Your task to perform on an android device: View the shopping cart on walmart.com. Add acer nitro to the cart on walmart.com, then select checkout. Image 0: 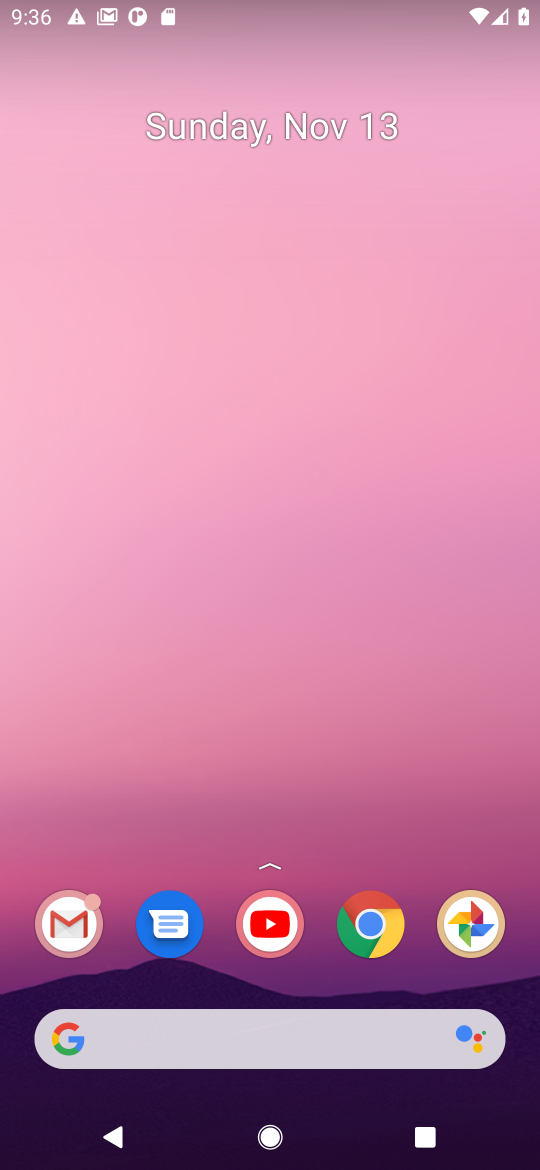
Step 0: click (375, 942)
Your task to perform on an android device: View the shopping cart on walmart.com. Add acer nitro to the cart on walmart.com, then select checkout. Image 1: 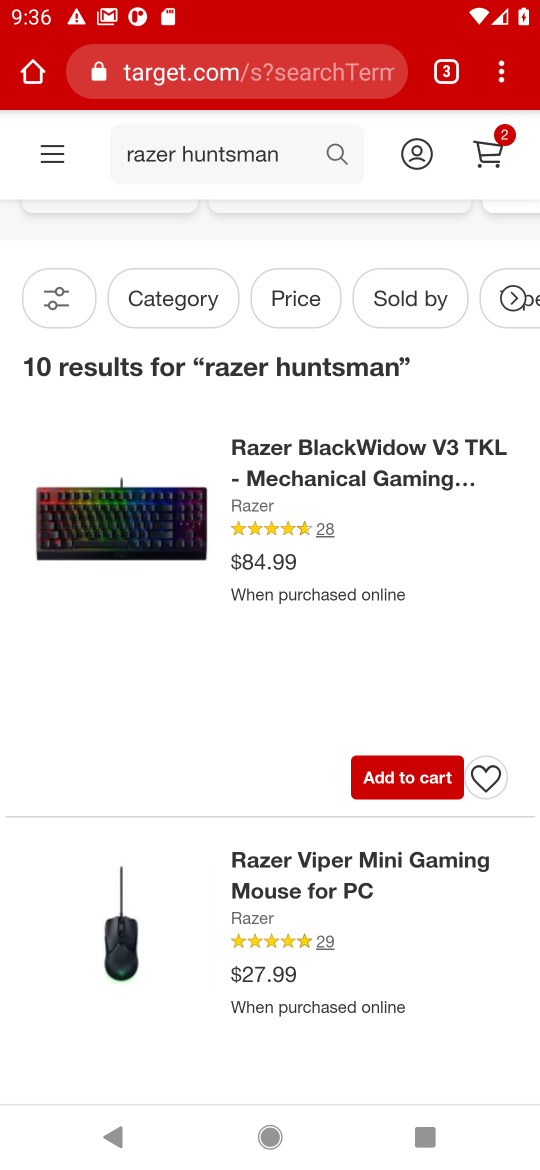
Step 1: click (250, 67)
Your task to perform on an android device: View the shopping cart on walmart.com. Add acer nitro to the cart on walmart.com, then select checkout. Image 2: 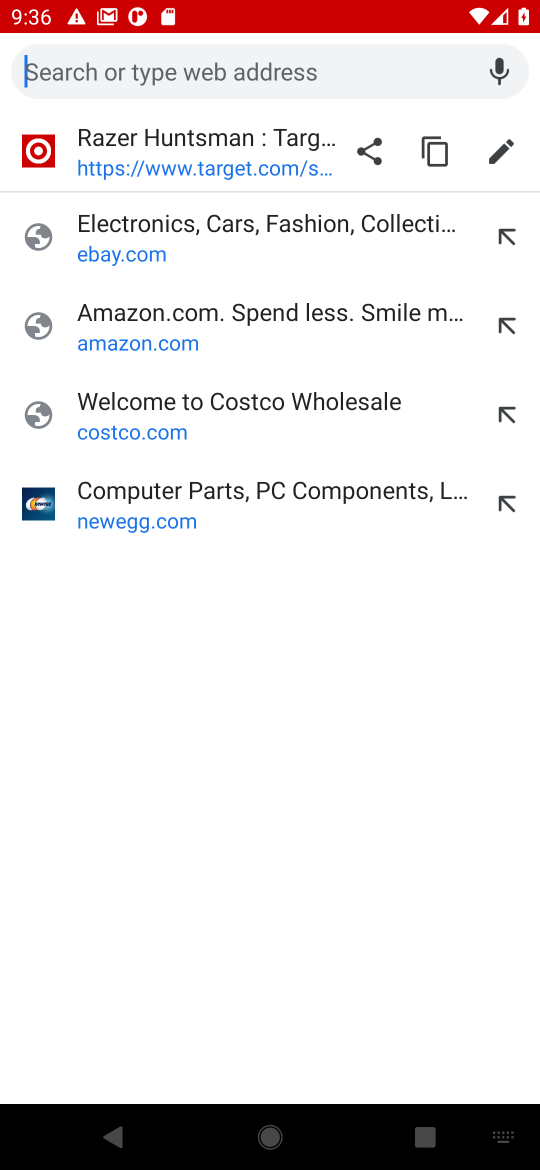
Step 2: type "walmart.com"
Your task to perform on an android device: View the shopping cart on walmart.com. Add acer nitro to the cart on walmart.com, then select checkout. Image 3: 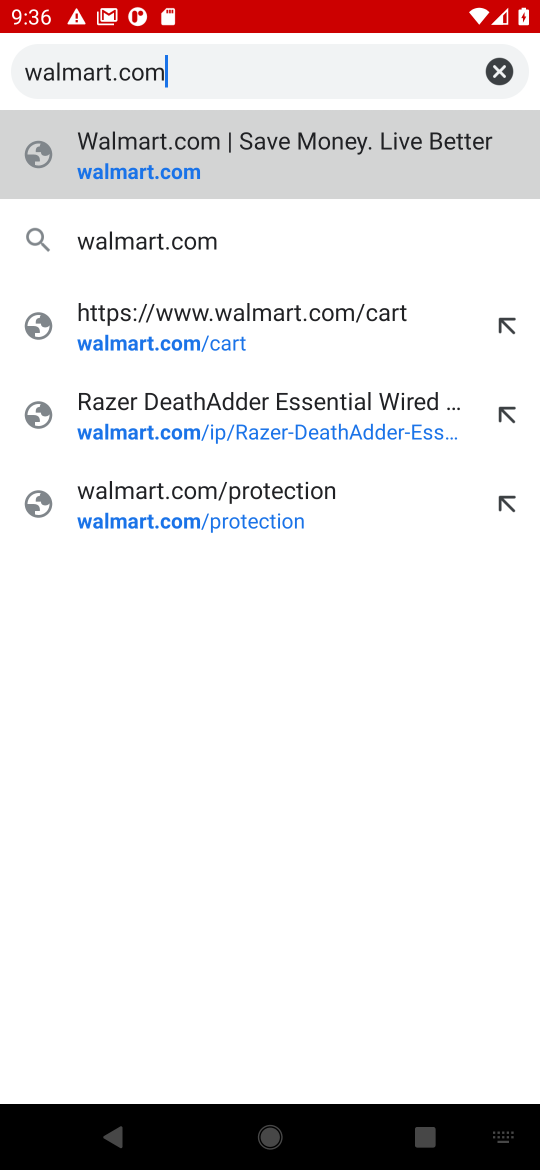
Step 3: click (146, 172)
Your task to perform on an android device: View the shopping cart on walmart.com. Add acer nitro to the cart on walmart.com, then select checkout. Image 4: 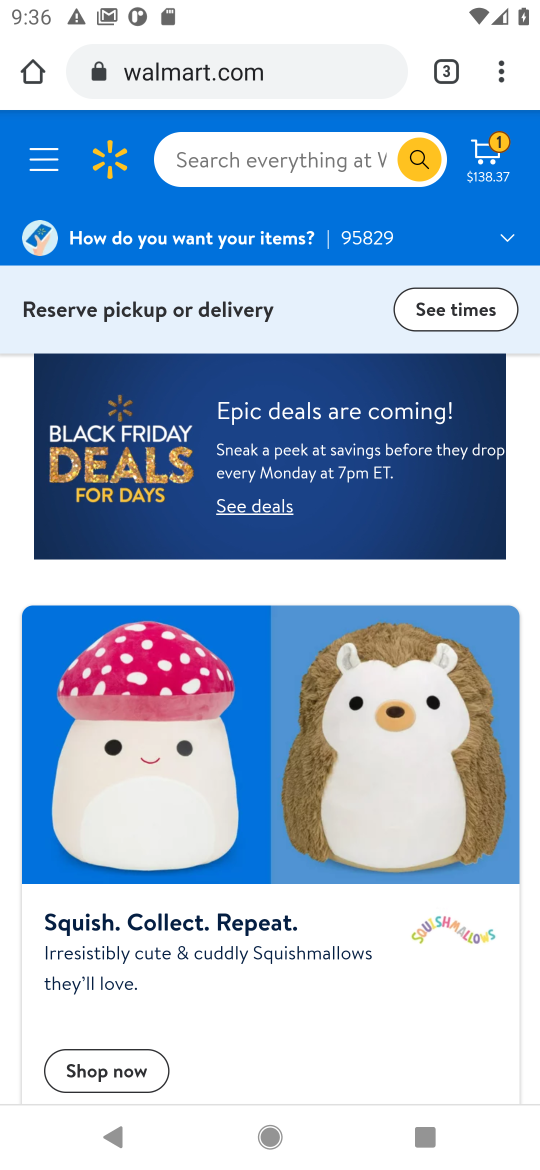
Step 4: click (487, 178)
Your task to perform on an android device: View the shopping cart on walmart.com. Add acer nitro to the cart on walmart.com, then select checkout. Image 5: 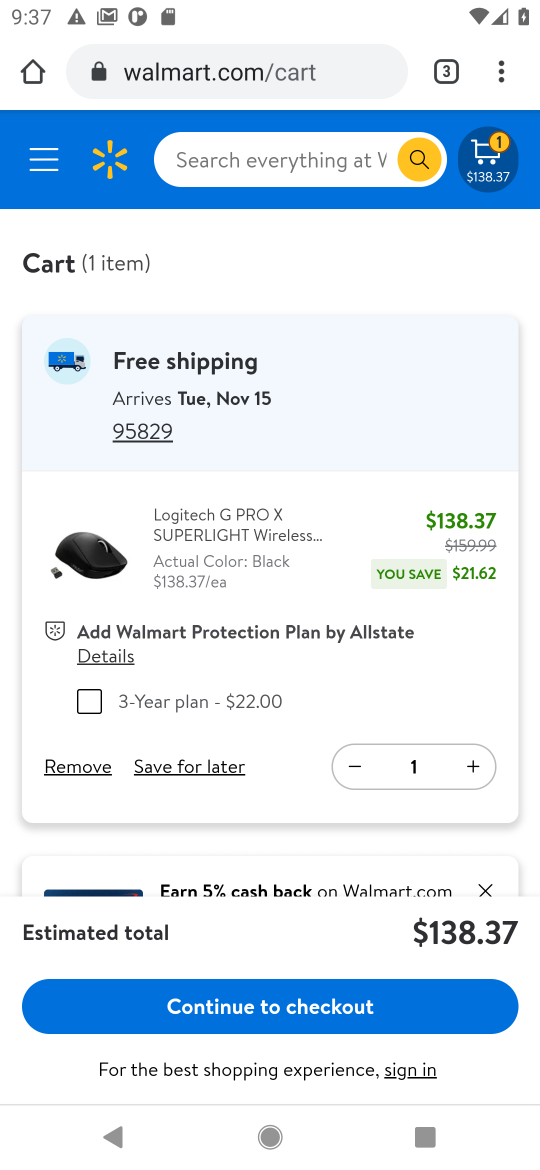
Step 5: click (247, 171)
Your task to perform on an android device: View the shopping cart on walmart.com. Add acer nitro to the cart on walmart.com, then select checkout. Image 6: 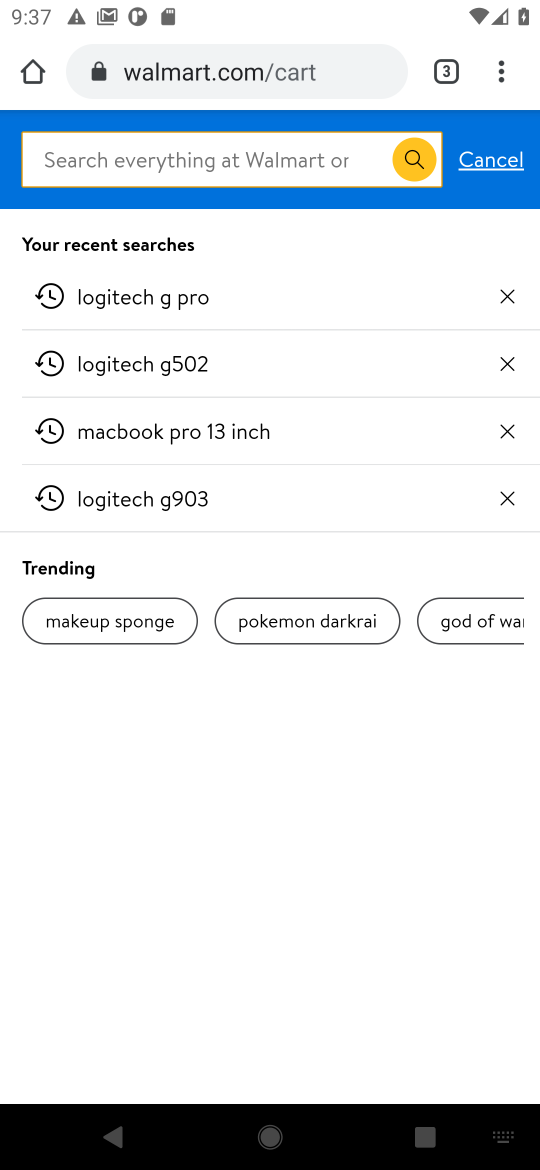
Step 6: type "acer nitro"
Your task to perform on an android device: View the shopping cart on walmart.com. Add acer nitro to the cart on walmart.com, then select checkout. Image 7: 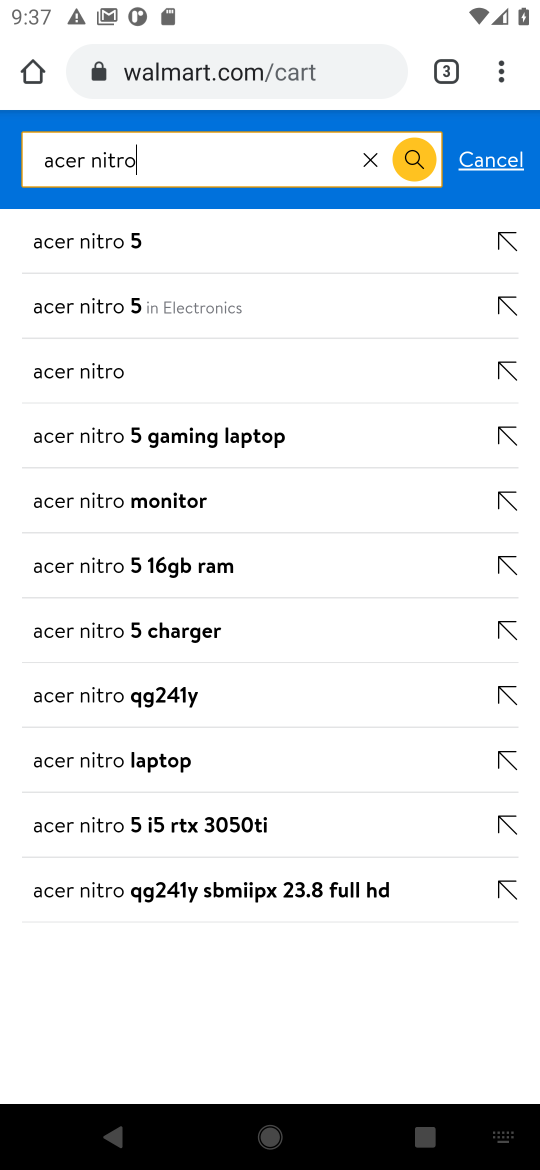
Step 7: click (50, 379)
Your task to perform on an android device: View the shopping cart on walmart.com. Add acer nitro to the cart on walmart.com, then select checkout. Image 8: 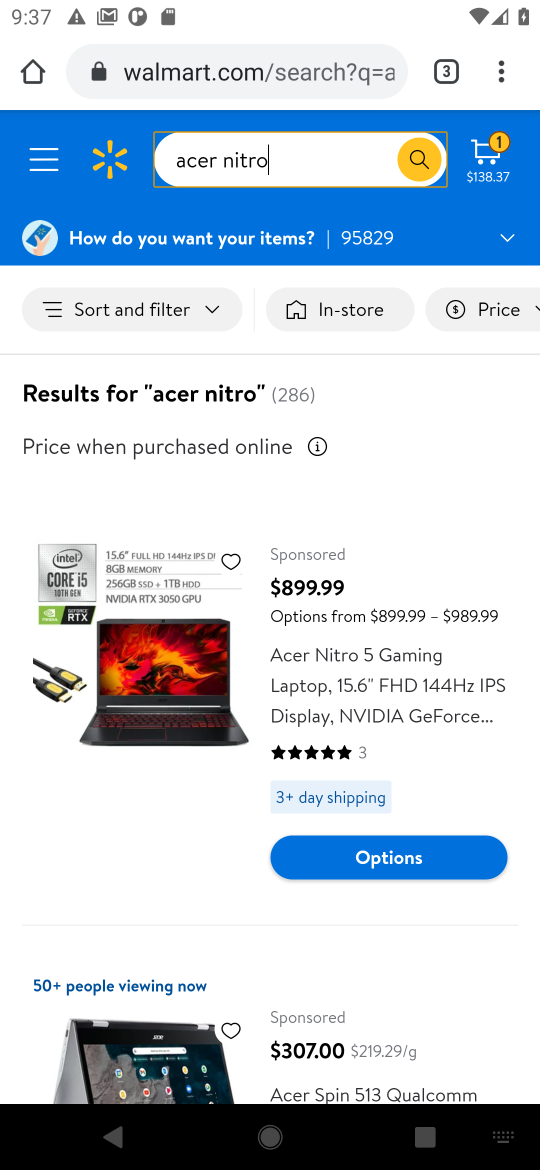
Step 8: click (137, 752)
Your task to perform on an android device: View the shopping cart on walmart.com. Add acer nitro to the cart on walmart.com, then select checkout. Image 9: 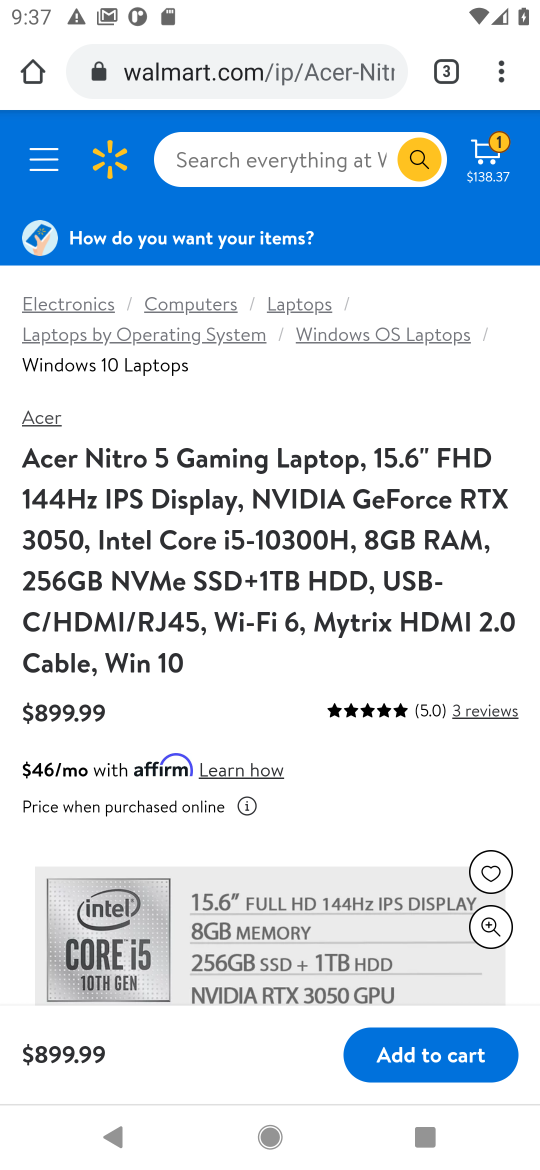
Step 9: click (424, 1064)
Your task to perform on an android device: View the shopping cart on walmart.com. Add acer nitro to the cart on walmart.com, then select checkout. Image 10: 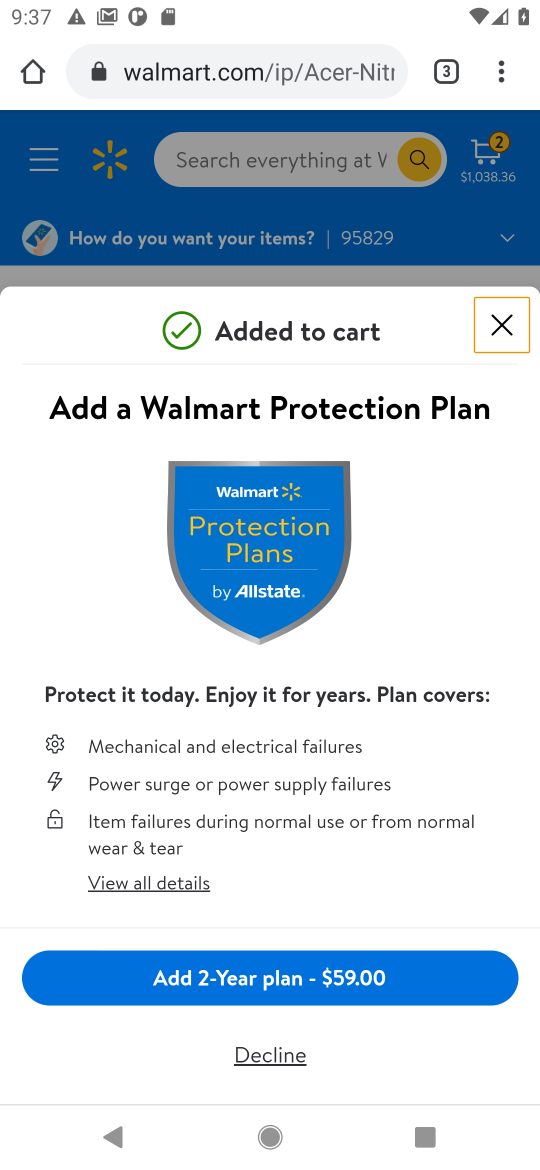
Step 10: click (498, 333)
Your task to perform on an android device: View the shopping cart on walmart.com. Add acer nitro to the cart on walmart.com, then select checkout. Image 11: 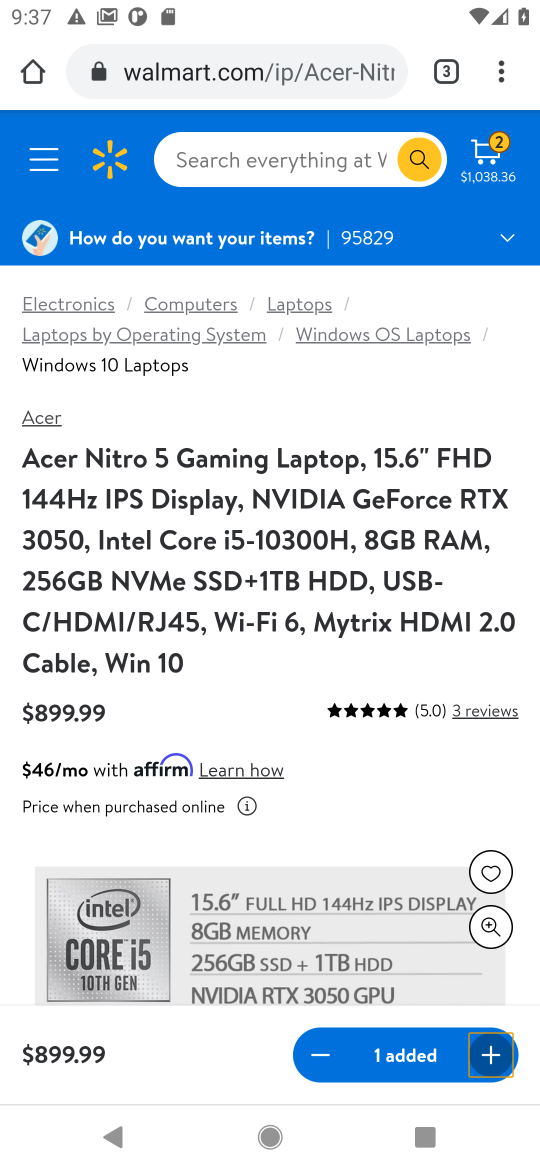
Step 11: click (470, 154)
Your task to perform on an android device: View the shopping cart on walmart.com. Add acer nitro to the cart on walmart.com, then select checkout. Image 12: 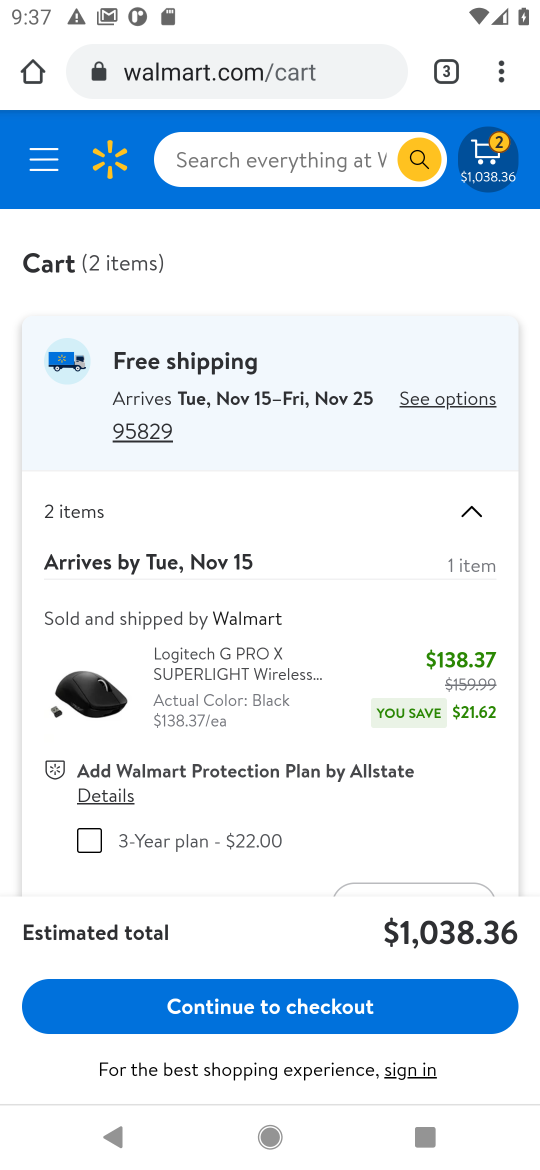
Step 12: click (271, 1011)
Your task to perform on an android device: View the shopping cart on walmart.com. Add acer nitro to the cart on walmart.com, then select checkout. Image 13: 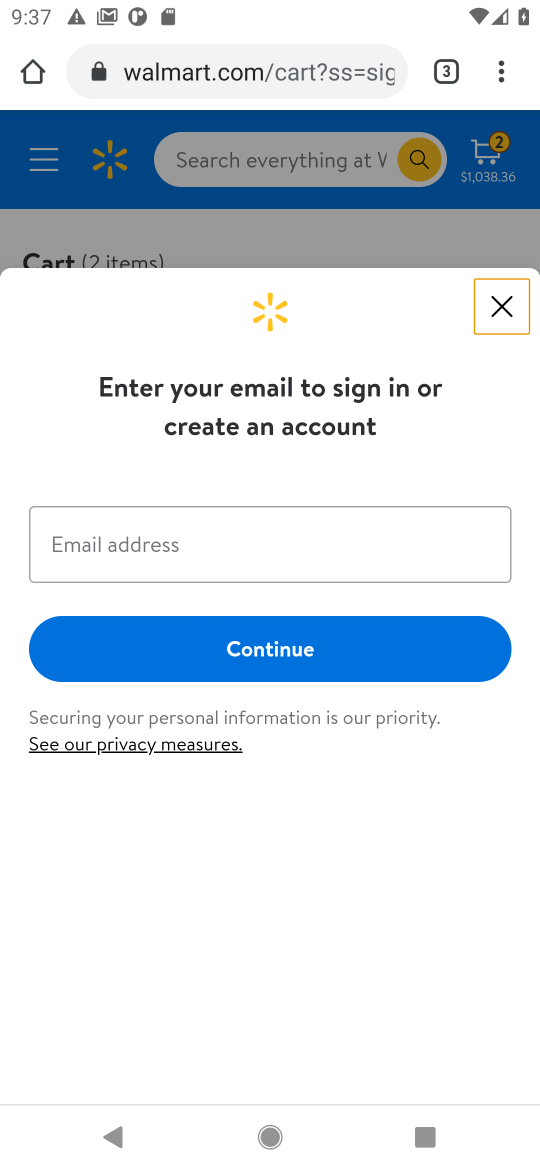
Step 13: task complete